Your task to perform on an android device: Open Yahoo.com Image 0: 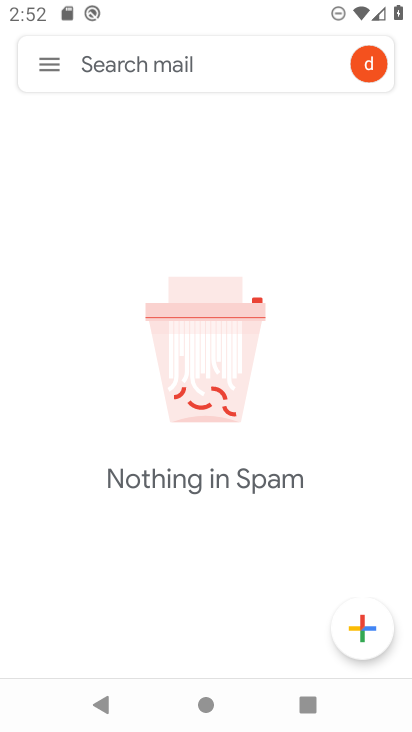
Step 0: press home button
Your task to perform on an android device: Open Yahoo.com Image 1: 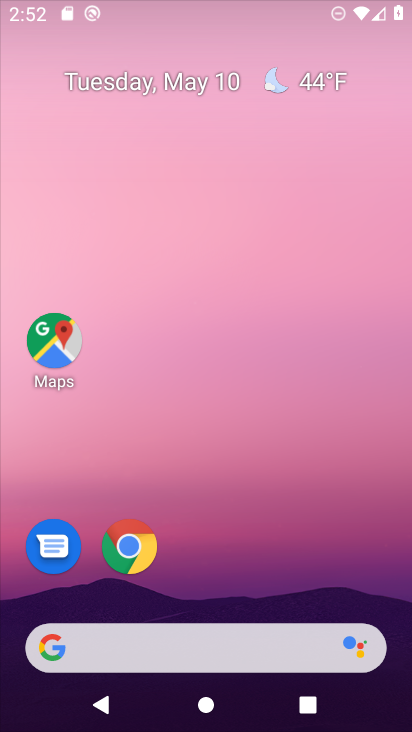
Step 1: drag from (341, 623) to (358, 0)
Your task to perform on an android device: Open Yahoo.com Image 2: 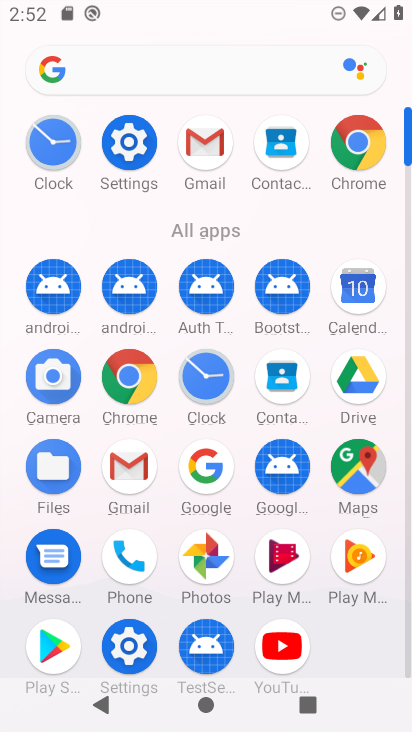
Step 2: click (119, 369)
Your task to perform on an android device: Open Yahoo.com Image 3: 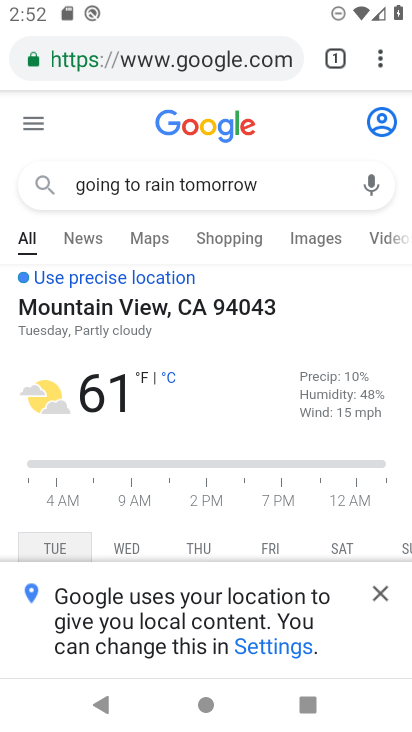
Step 3: click (229, 48)
Your task to perform on an android device: Open Yahoo.com Image 4: 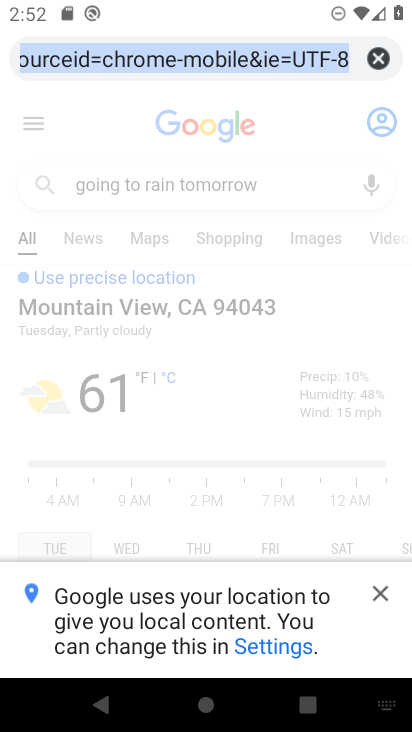
Step 4: click (378, 59)
Your task to perform on an android device: Open Yahoo.com Image 5: 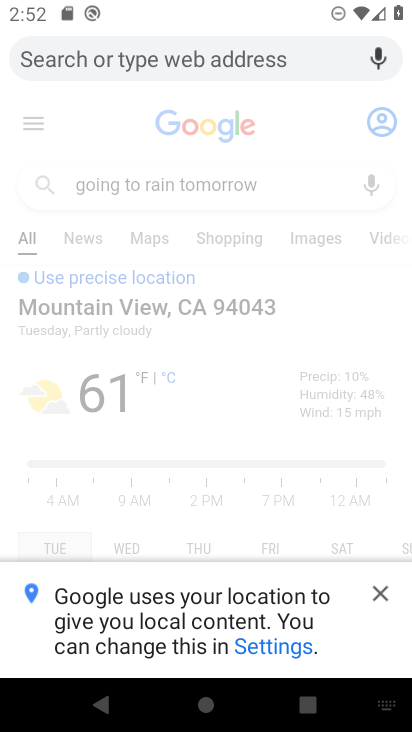
Step 5: type "yahoo.com"
Your task to perform on an android device: Open Yahoo.com Image 6: 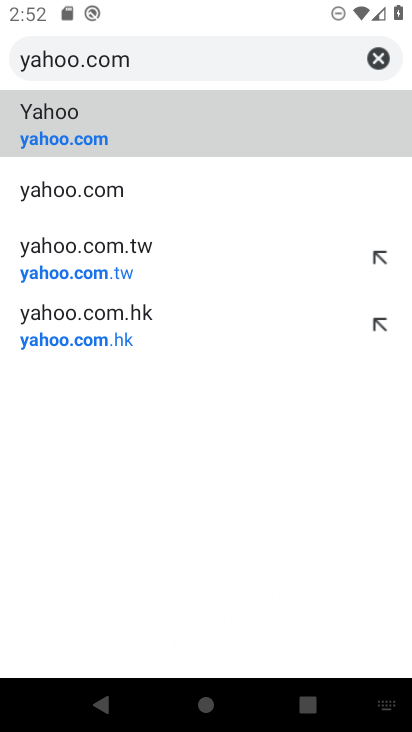
Step 6: click (109, 123)
Your task to perform on an android device: Open Yahoo.com Image 7: 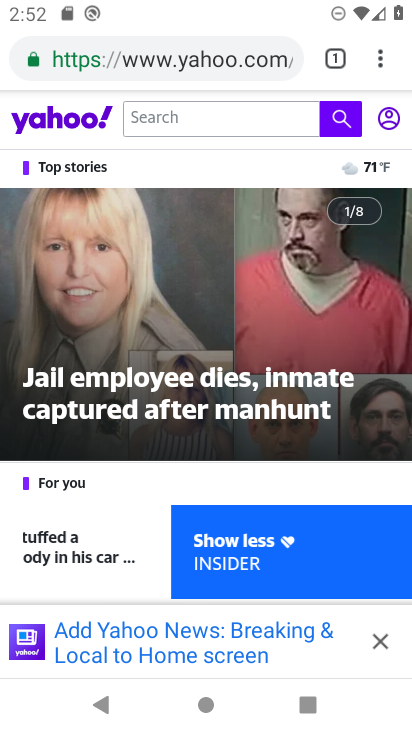
Step 7: task complete